Your task to perform on an android device: manage bookmarks in the chrome app Image 0: 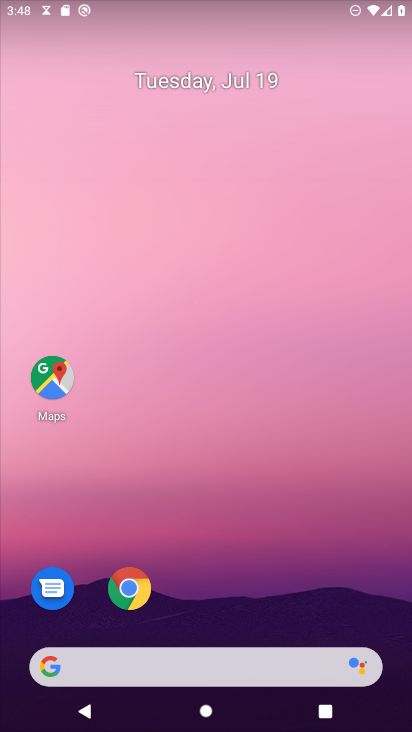
Step 0: click (123, 583)
Your task to perform on an android device: manage bookmarks in the chrome app Image 1: 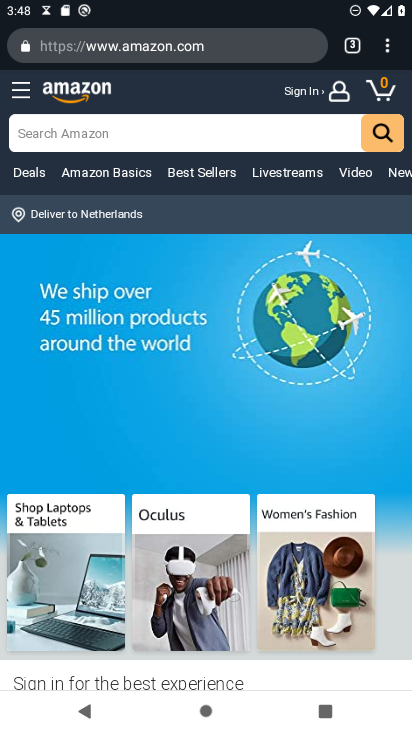
Step 1: click (390, 44)
Your task to perform on an android device: manage bookmarks in the chrome app Image 2: 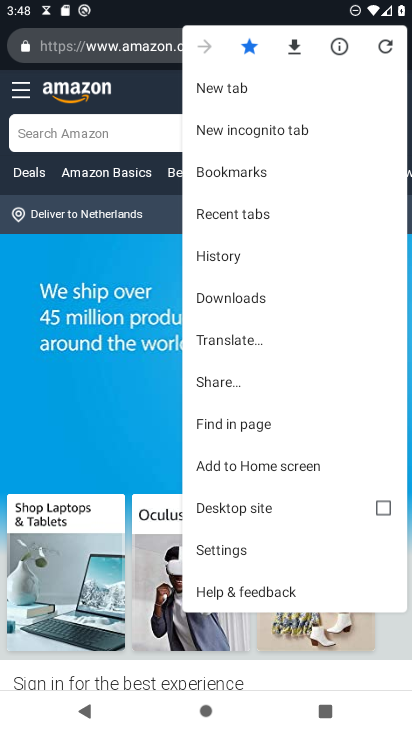
Step 2: click (243, 178)
Your task to perform on an android device: manage bookmarks in the chrome app Image 3: 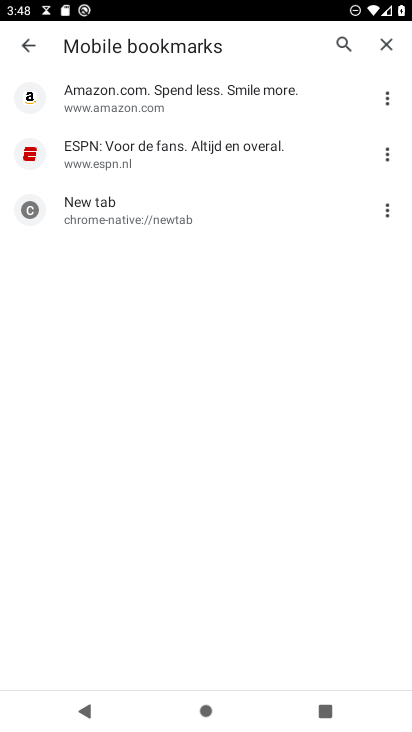
Step 3: click (383, 98)
Your task to perform on an android device: manage bookmarks in the chrome app Image 4: 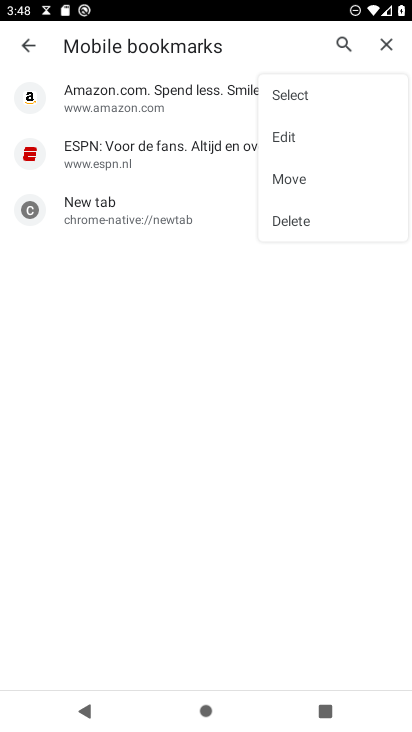
Step 4: click (300, 222)
Your task to perform on an android device: manage bookmarks in the chrome app Image 5: 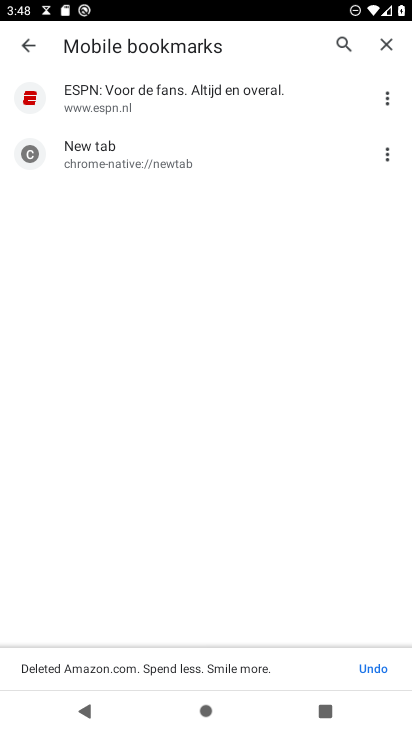
Step 5: task complete